Your task to perform on an android device: Open Google Chrome and open the bookmarks view Image 0: 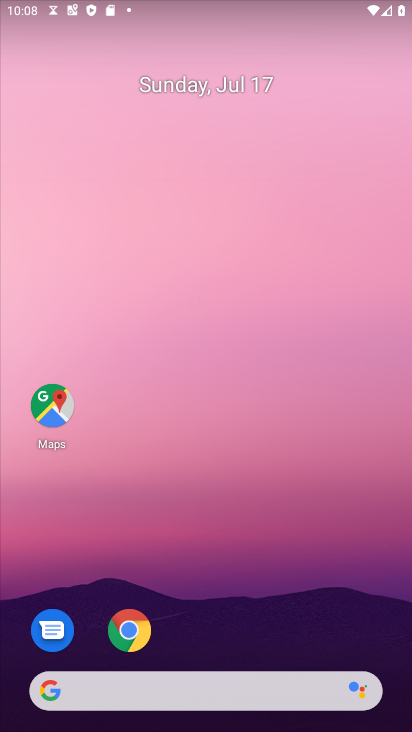
Step 0: drag from (322, 681) to (30, 14)
Your task to perform on an android device: Open Google Chrome and open the bookmarks view Image 1: 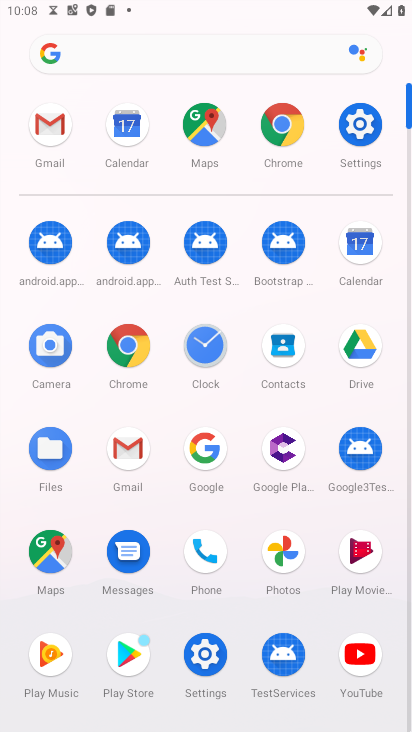
Step 1: click (123, 354)
Your task to perform on an android device: Open Google Chrome and open the bookmarks view Image 2: 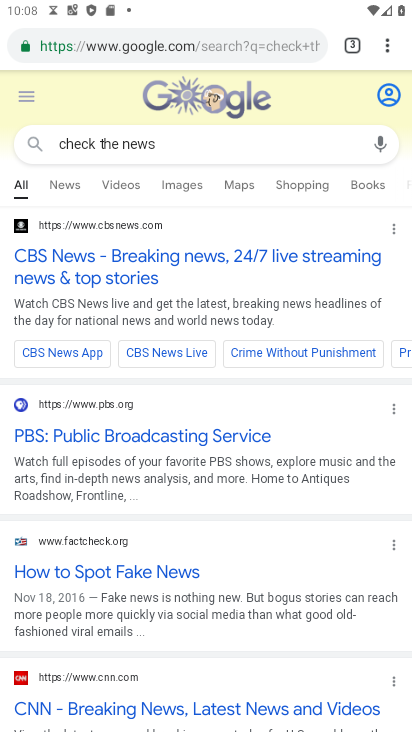
Step 2: click (377, 45)
Your task to perform on an android device: Open Google Chrome and open the bookmarks view Image 3: 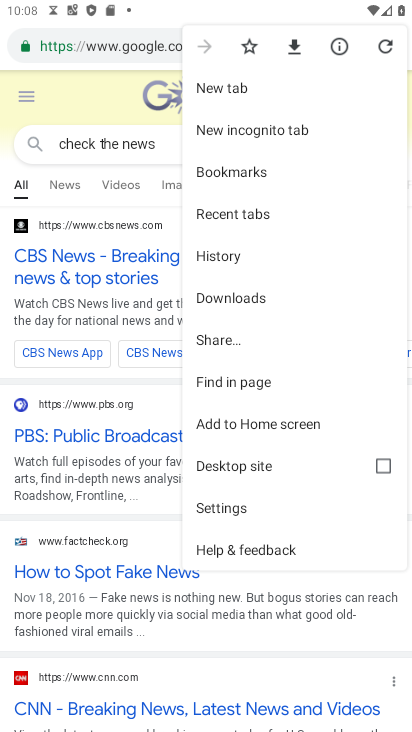
Step 3: click (252, 166)
Your task to perform on an android device: Open Google Chrome and open the bookmarks view Image 4: 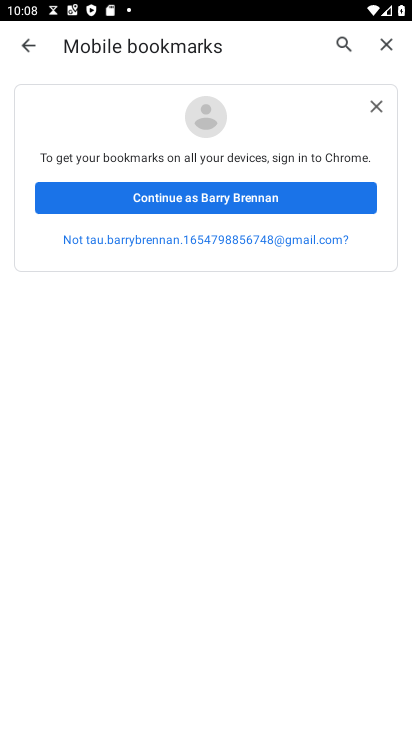
Step 4: task complete